Your task to perform on an android device: Open Google Image 0: 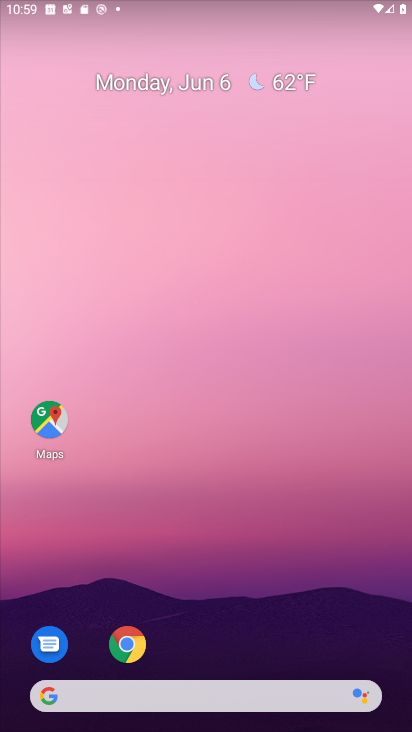
Step 0: drag from (174, 633) to (188, 262)
Your task to perform on an android device: Open Google Image 1: 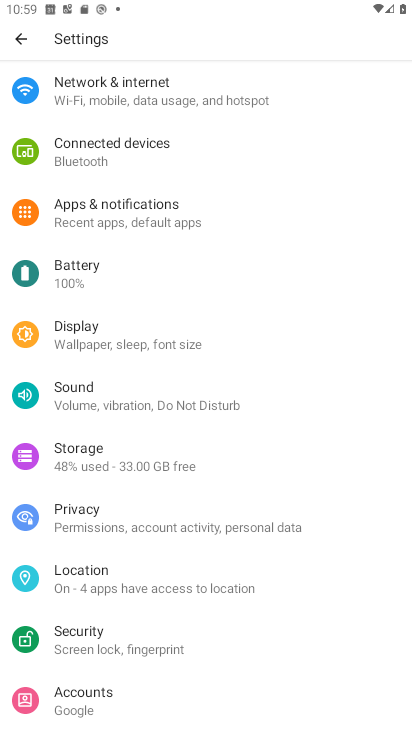
Step 1: press home button
Your task to perform on an android device: Open Google Image 2: 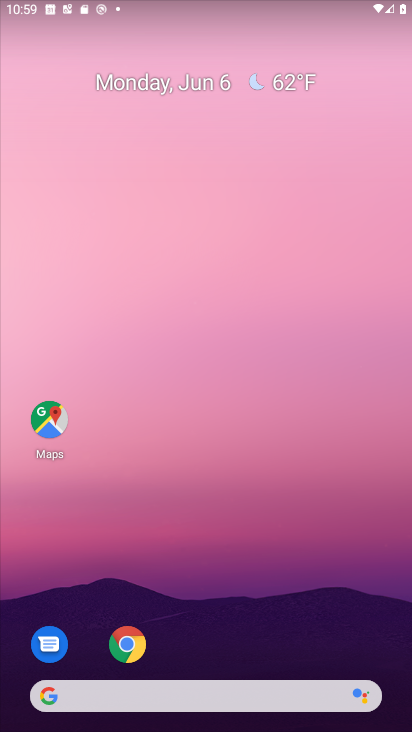
Step 2: drag from (164, 650) to (182, 315)
Your task to perform on an android device: Open Google Image 3: 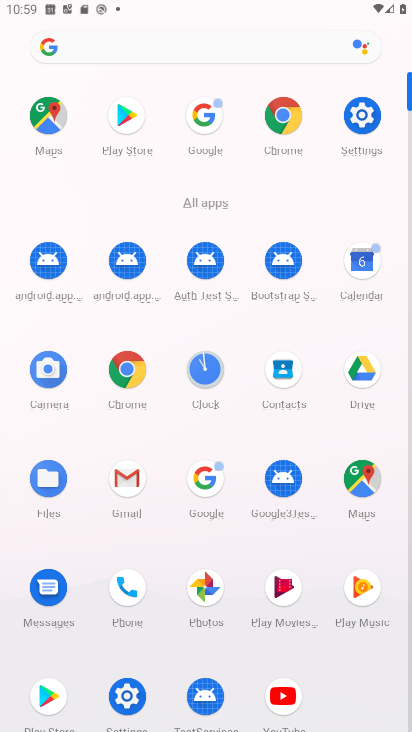
Step 3: click (201, 479)
Your task to perform on an android device: Open Google Image 4: 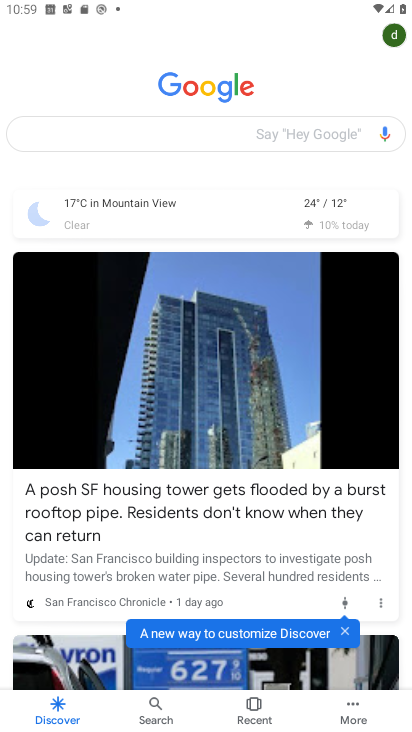
Step 4: task complete